Your task to perform on an android device: Add "sony triple a" to the cart on newegg.com Image 0: 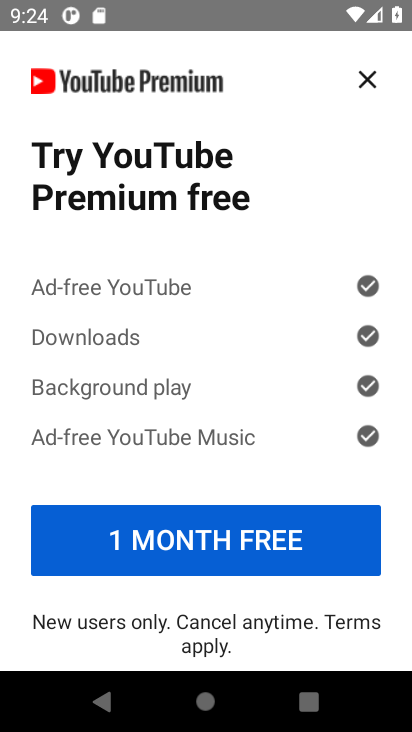
Step 0: press home button
Your task to perform on an android device: Add "sony triple a" to the cart on newegg.com Image 1: 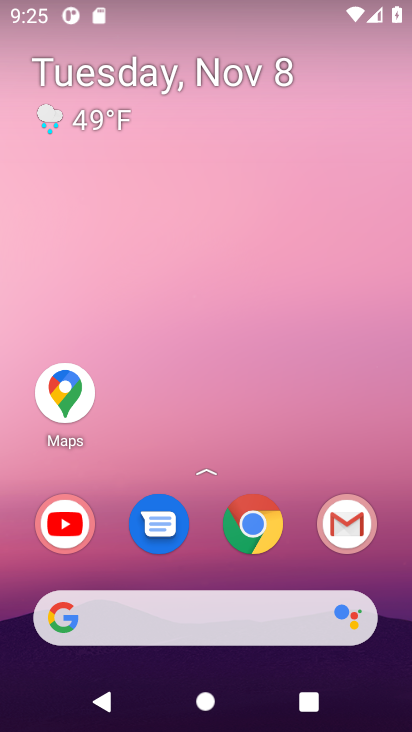
Step 1: click (267, 512)
Your task to perform on an android device: Add "sony triple a" to the cart on newegg.com Image 2: 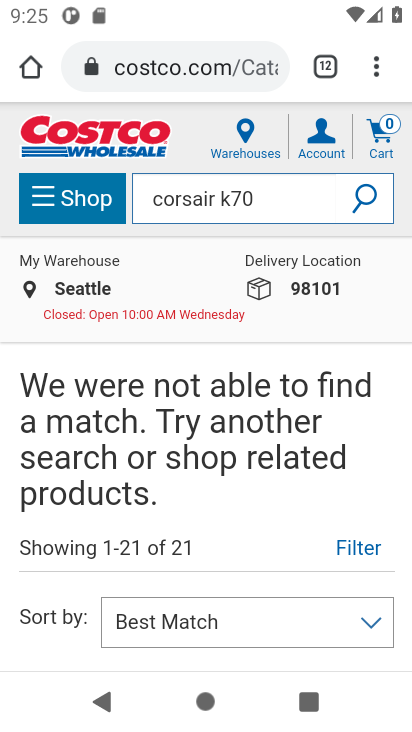
Step 2: click (213, 79)
Your task to perform on an android device: Add "sony triple a" to the cart on newegg.com Image 3: 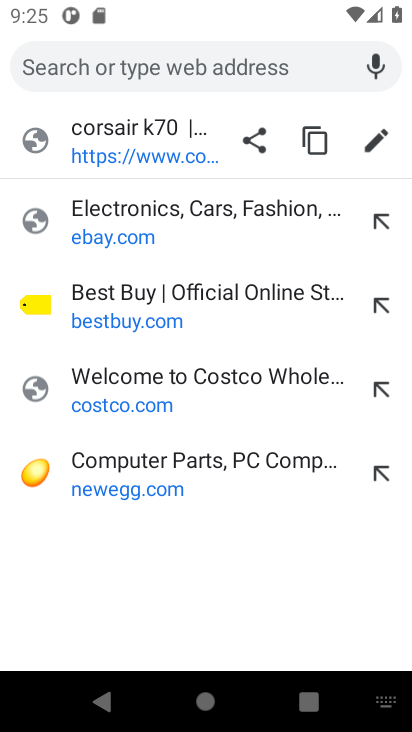
Step 3: click (104, 470)
Your task to perform on an android device: Add "sony triple a" to the cart on newegg.com Image 4: 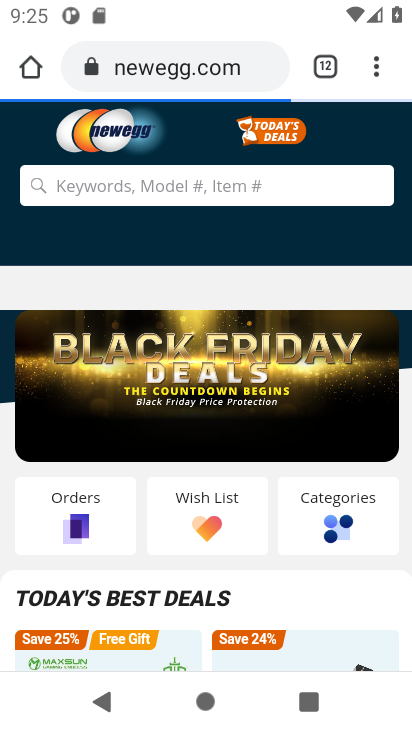
Step 4: click (148, 176)
Your task to perform on an android device: Add "sony triple a" to the cart on newegg.com Image 5: 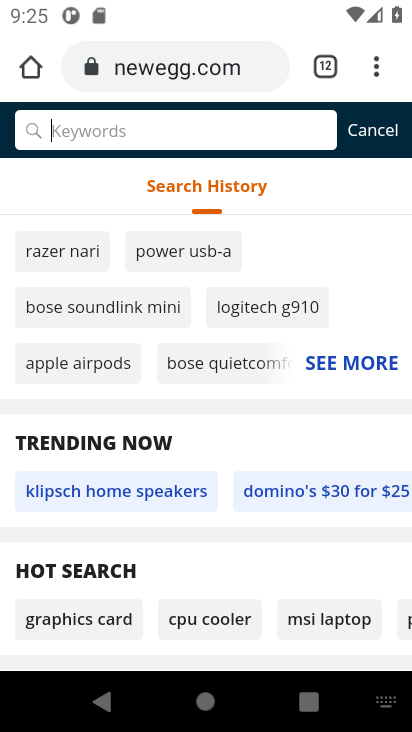
Step 5: type "sony triple a"
Your task to perform on an android device: Add "sony triple a" to the cart on newegg.com Image 6: 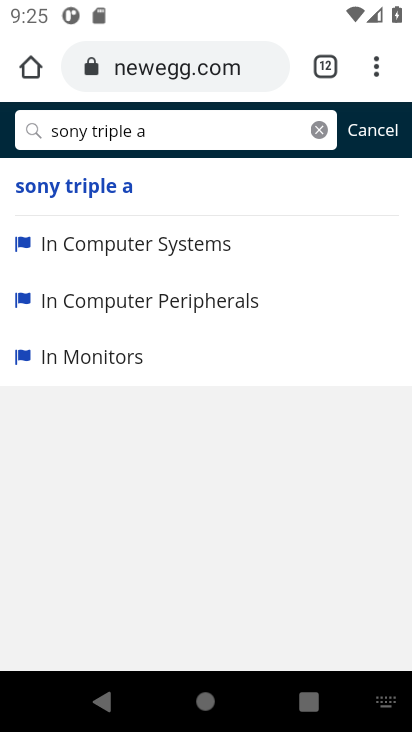
Step 6: click (50, 185)
Your task to perform on an android device: Add "sony triple a" to the cart on newegg.com Image 7: 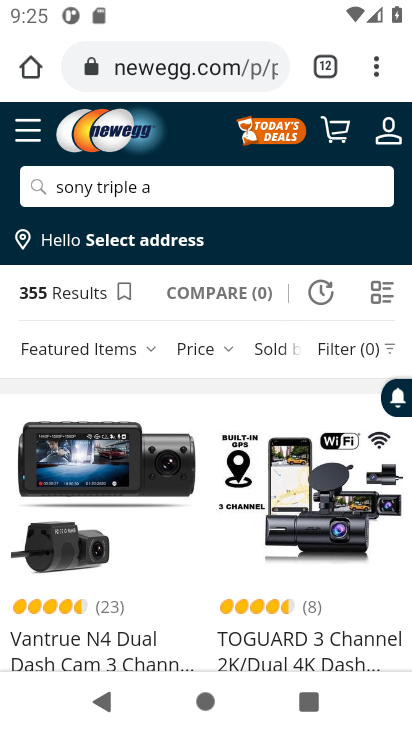
Step 7: task complete